Your task to perform on an android device: choose inbox layout in the gmail app Image 0: 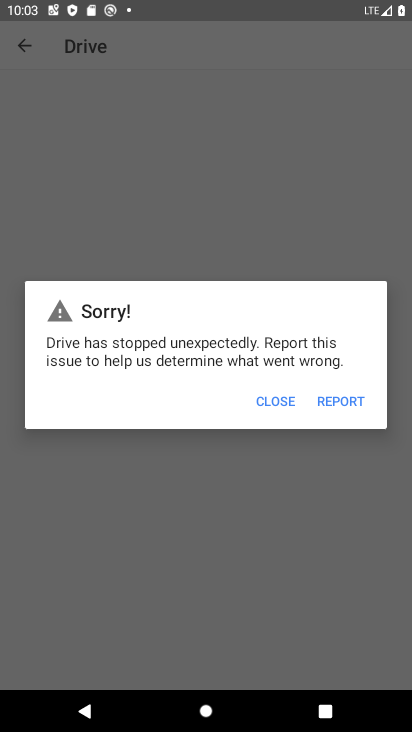
Step 0: press home button
Your task to perform on an android device: choose inbox layout in the gmail app Image 1: 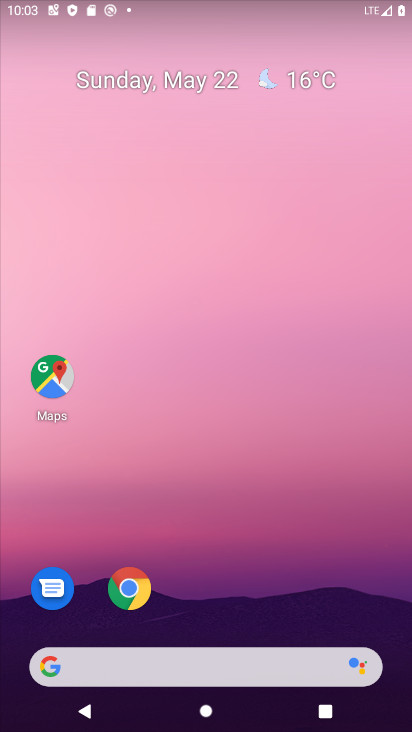
Step 1: drag from (220, 612) to (222, 278)
Your task to perform on an android device: choose inbox layout in the gmail app Image 2: 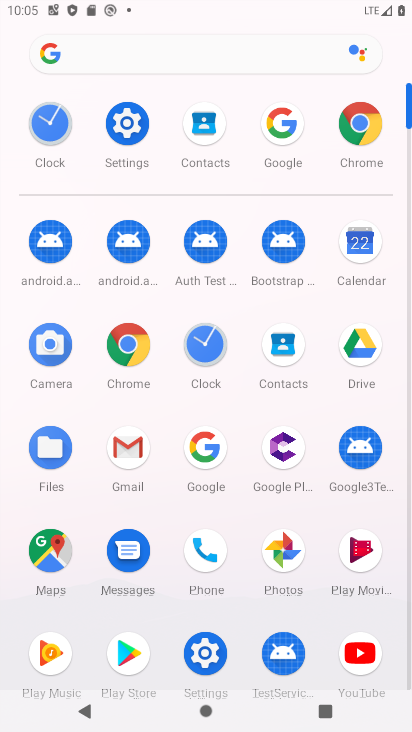
Step 2: click (119, 444)
Your task to perform on an android device: choose inbox layout in the gmail app Image 3: 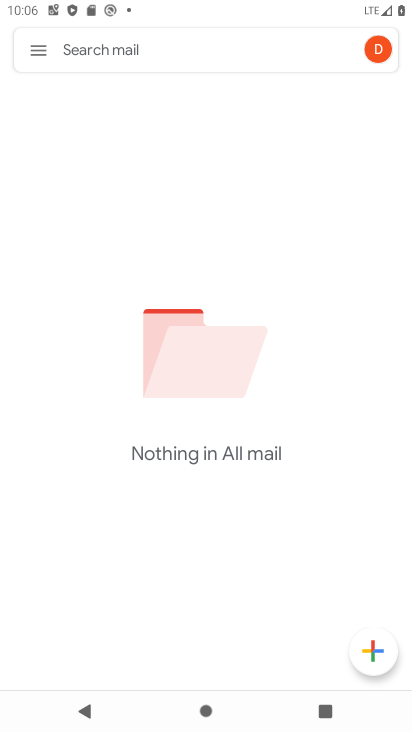
Step 3: click (48, 61)
Your task to perform on an android device: choose inbox layout in the gmail app Image 4: 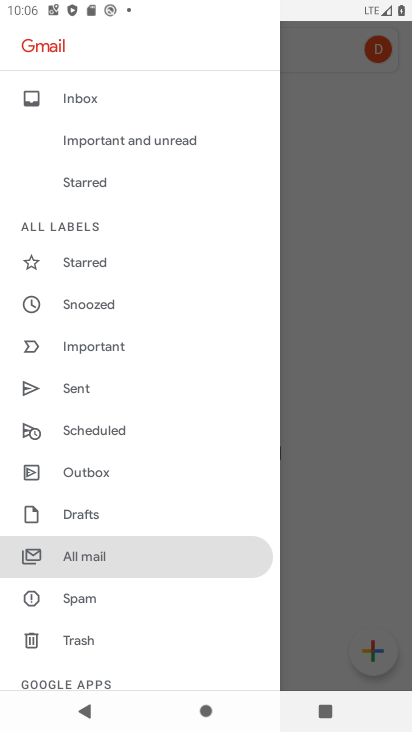
Step 4: drag from (102, 662) to (122, 336)
Your task to perform on an android device: choose inbox layout in the gmail app Image 5: 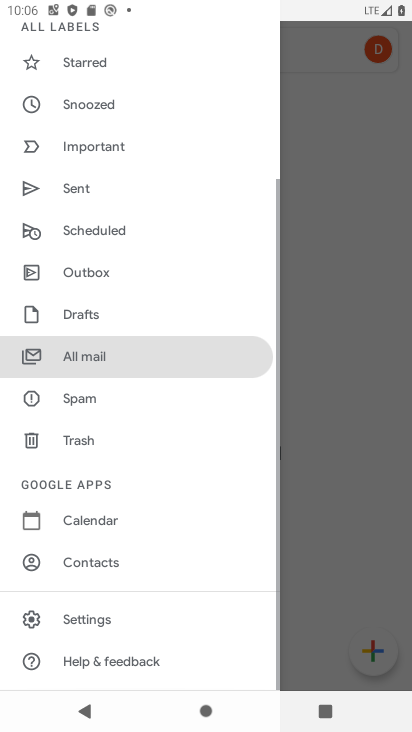
Step 5: click (95, 616)
Your task to perform on an android device: choose inbox layout in the gmail app Image 6: 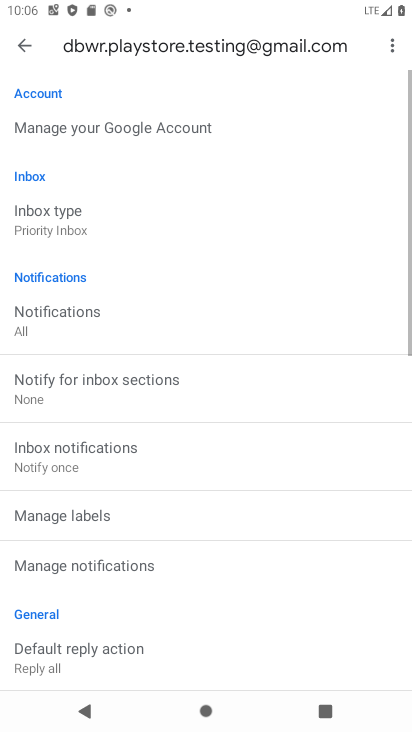
Step 6: click (82, 217)
Your task to perform on an android device: choose inbox layout in the gmail app Image 7: 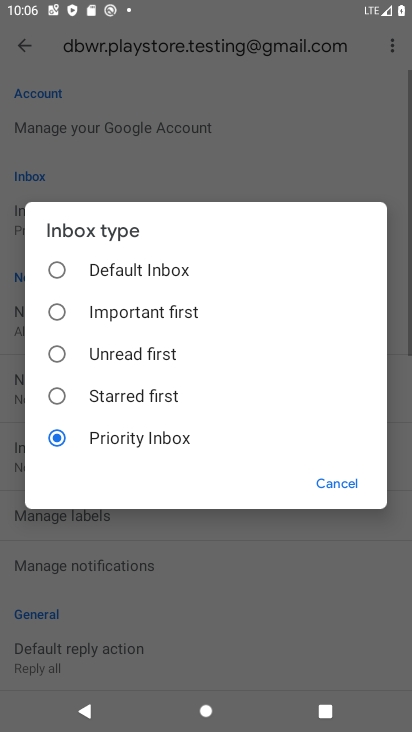
Step 7: click (108, 259)
Your task to perform on an android device: choose inbox layout in the gmail app Image 8: 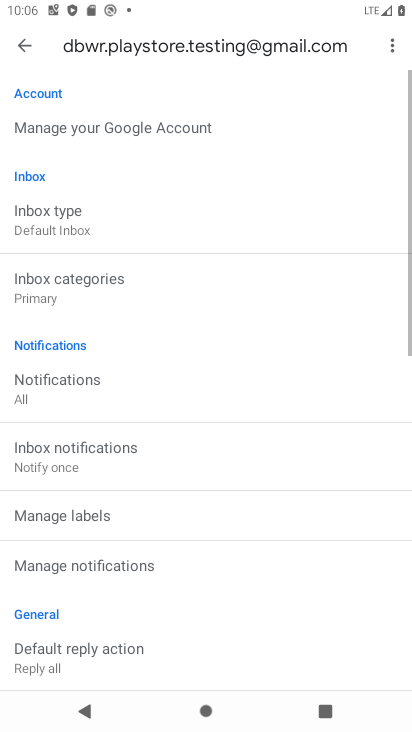
Step 8: task complete